Your task to perform on an android device: Go to Yahoo.com Image 0: 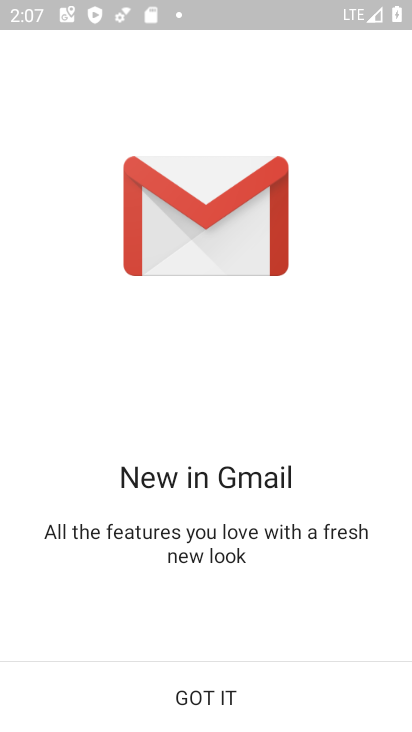
Step 0: press home button
Your task to perform on an android device: Go to Yahoo.com Image 1: 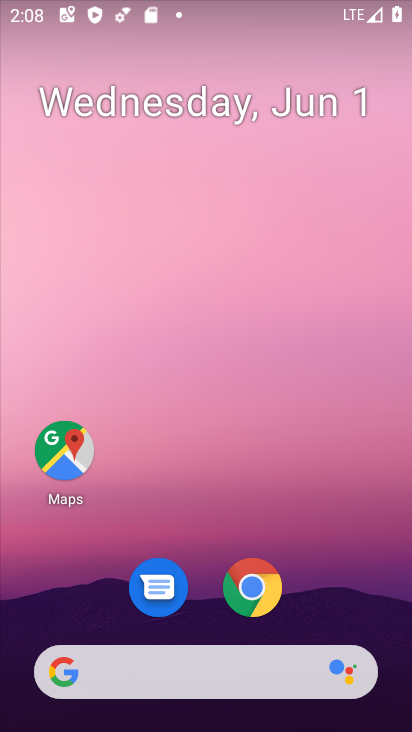
Step 1: click (244, 587)
Your task to perform on an android device: Go to Yahoo.com Image 2: 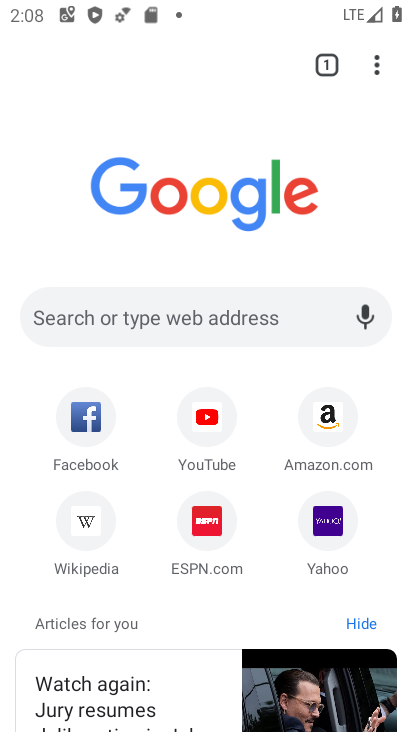
Step 2: click (307, 534)
Your task to perform on an android device: Go to Yahoo.com Image 3: 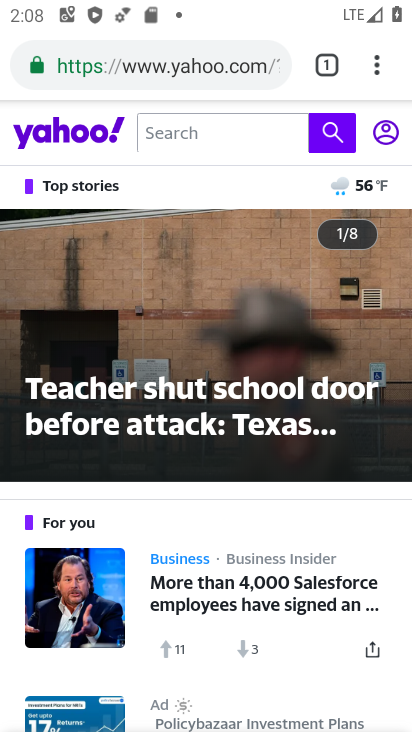
Step 3: task complete